Your task to perform on an android device: check data usage Image 0: 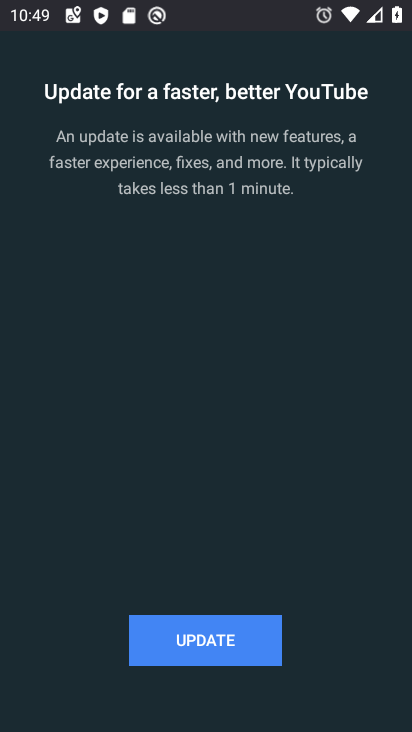
Step 0: press home button
Your task to perform on an android device: check data usage Image 1: 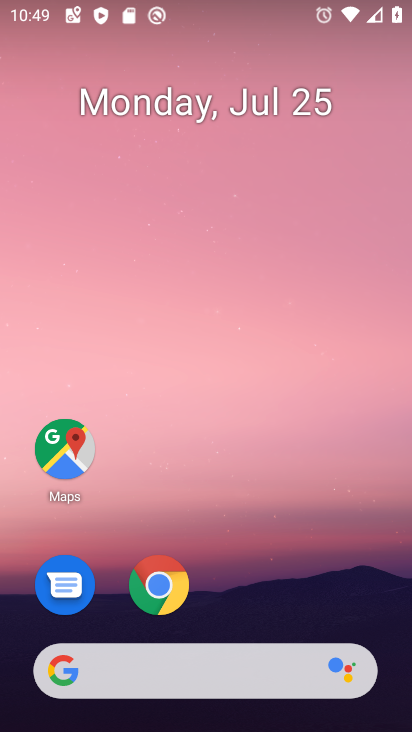
Step 1: drag from (223, 627) to (220, 88)
Your task to perform on an android device: check data usage Image 2: 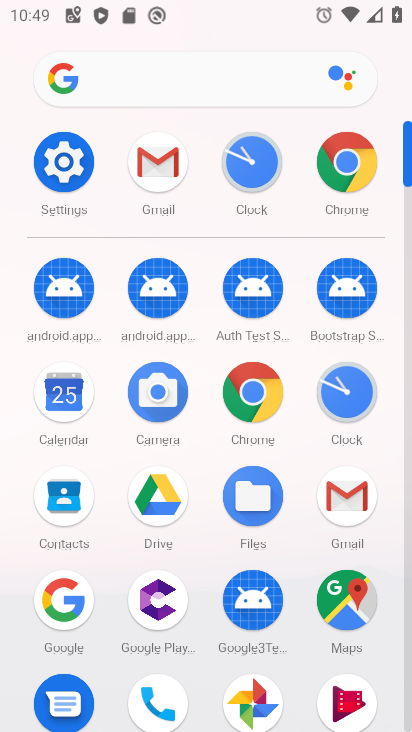
Step 2: click (34, 162)
Your task to perform on an android device: check data usage Image 3: 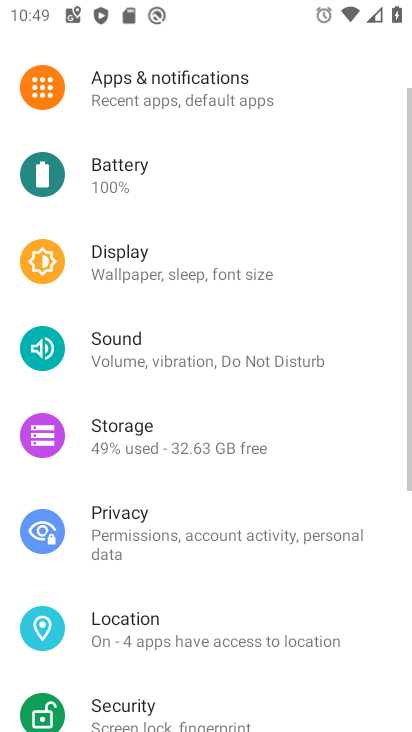
Step 3: drag from (186, 148) to (136, 550)
Your task to perform on an android device: check data usage Image 4: 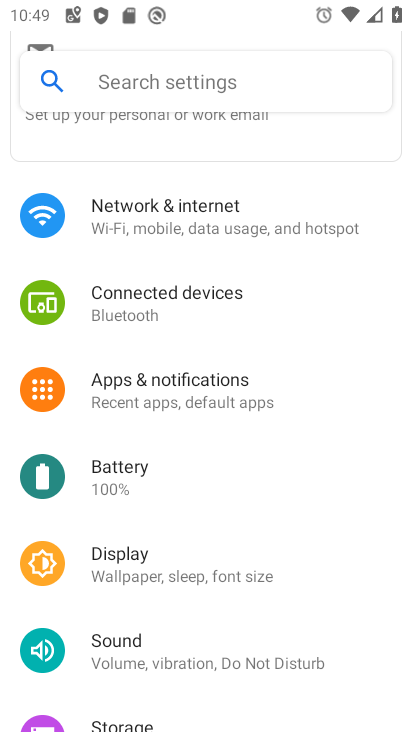
Step 4: click (150, 209)
Your task to perform on an android device: check data usage Image 5: 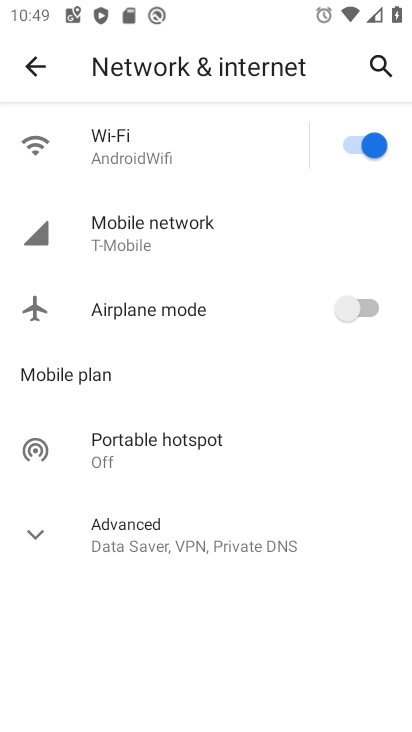
Step 5: click (154, 234)
Your task to perform on an android device: check data usage Image 6: 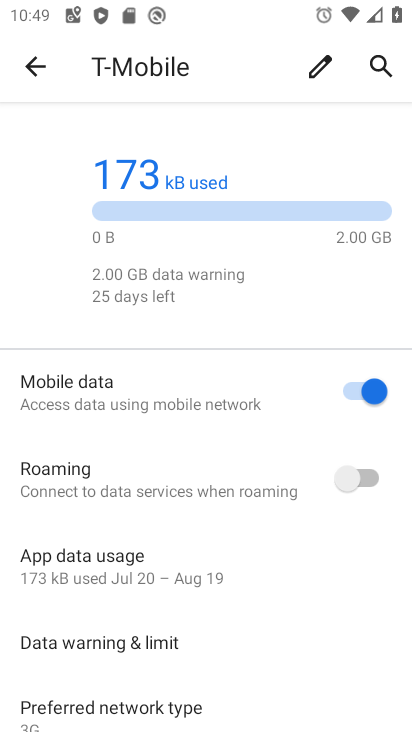
Step 6: task complete